Your task to perform on an android device: choose inbox layout in the gmail app Image 0: 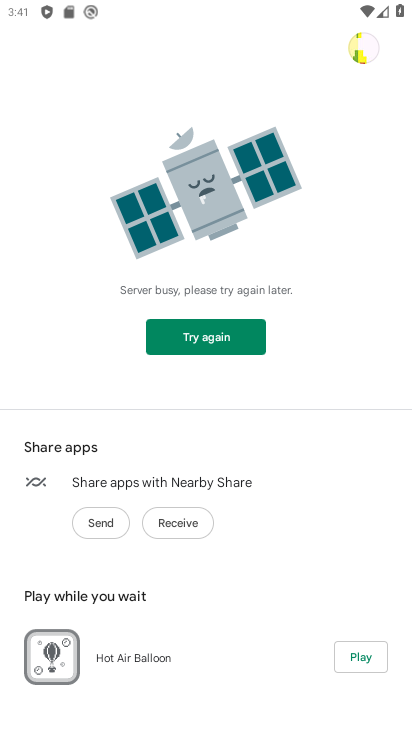
Step 0: press home button
Your task to perform on an android device: choose inbox layout in the gmail app Image 1: 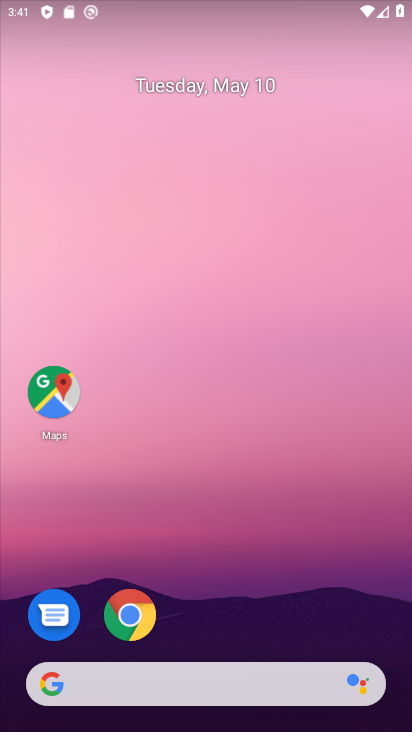
Step 1: drag from (272, 621) to (314, 54)
Your task to perform on an android device: choose inbox layout in the gmail app Image 2: 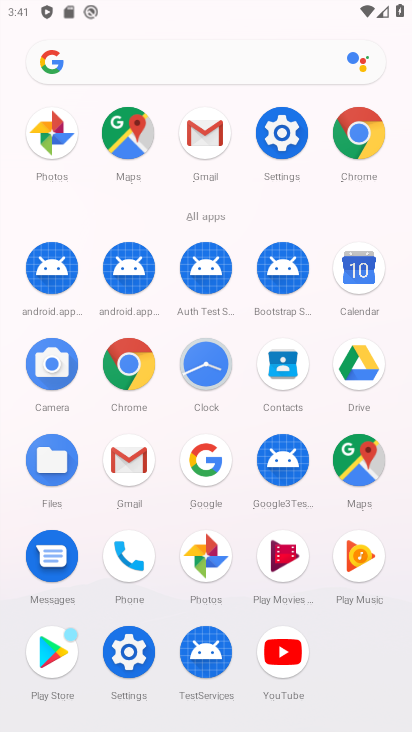
Step 2: click (132, 470)
Your task to perform on an android device: choose inbox layout in the gmail app Image 3: 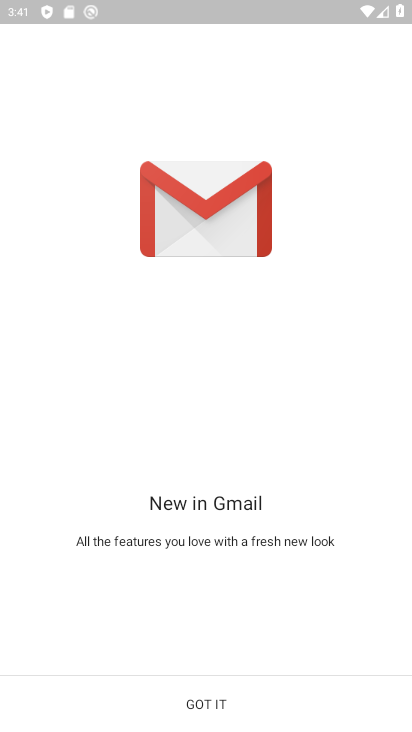
Step 3: click (198, 703)
Your task to perform on an android device: choose inbox layout in the gmail app Image 4: 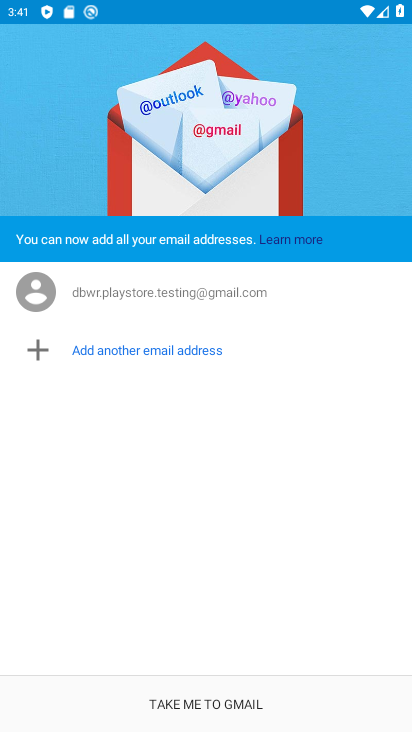
Step 4: click (193, 710)
Your task to perform on an android device: choose inbox layout in the gmail app Image 5: 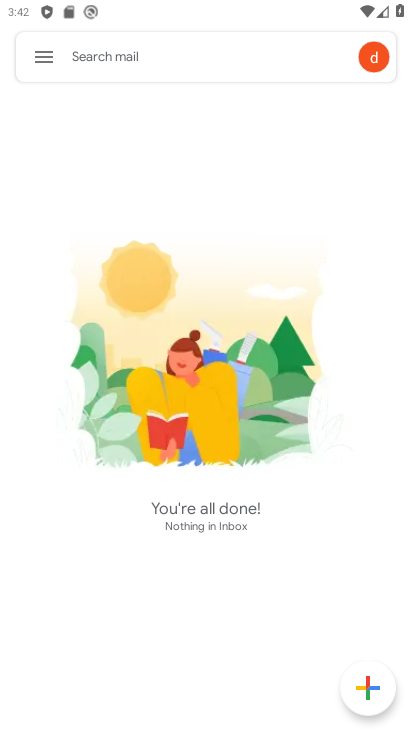
Step 5: click (41, 60)
Your task to perform on an android device: choose inbox layout in the gmail app Image 6: 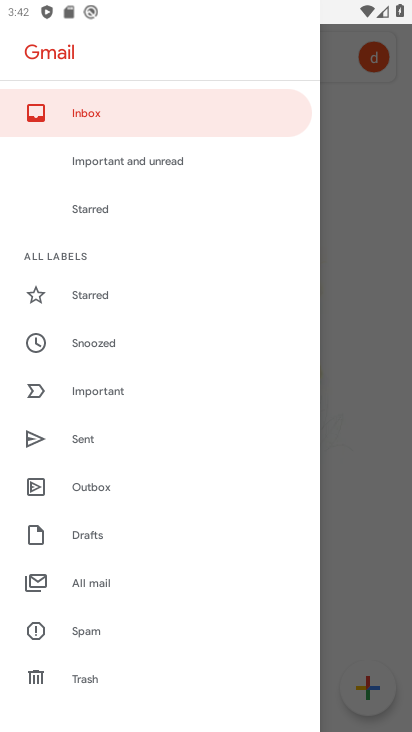
Step 6: click (86, 109)
Your task to perform on an android device: choose inbox layout in the gmail app Image 7: 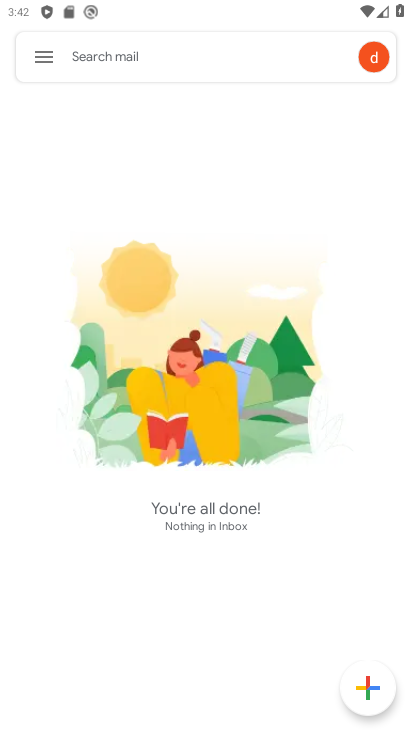
Step 7: task complete